Your task to perform on an android device: toggle pop-ups in chrome Image 0: 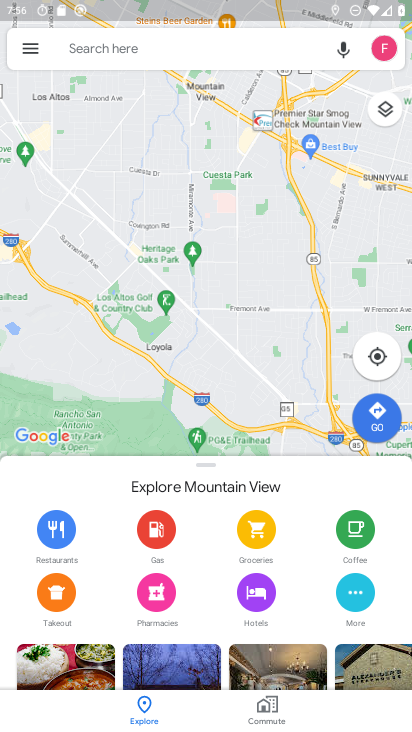
Step 0: press home button
Your task to perform on an android device: toggle pop-ups in chrome Image 1: 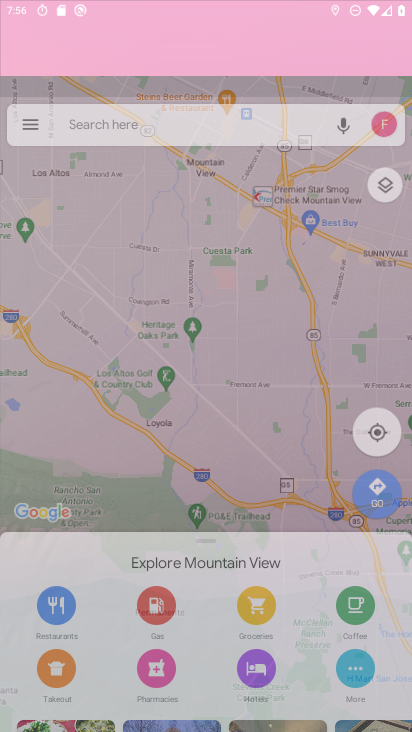
Step 1: drag from (382, 694) to (313, 76)
Your task to perform on an android device: toggle pop-ups in chrome Image 2: 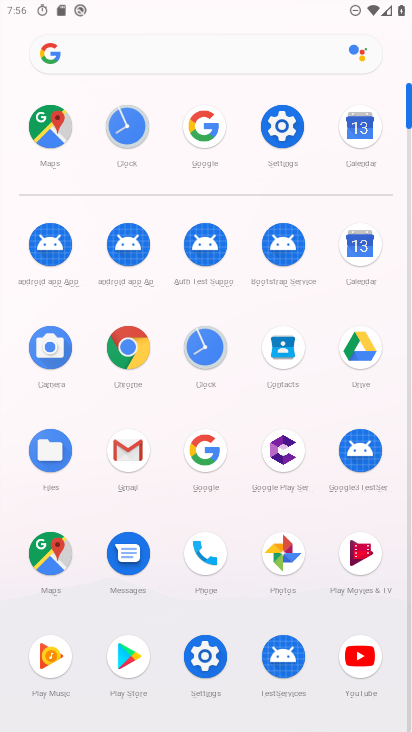
Step 2: click (122, 344)
Your task to perform on an android device: toggle pop-ups in chrome Image 3: 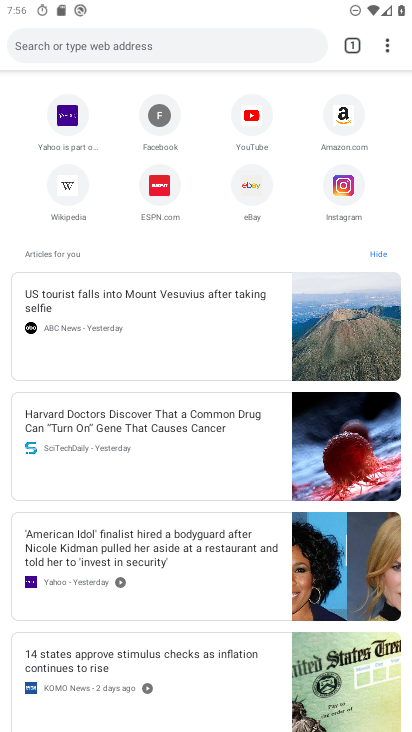
Step 3: click (388, 49)
Your task to perform on an android device: toggle pop-ups in chrome Image 4: 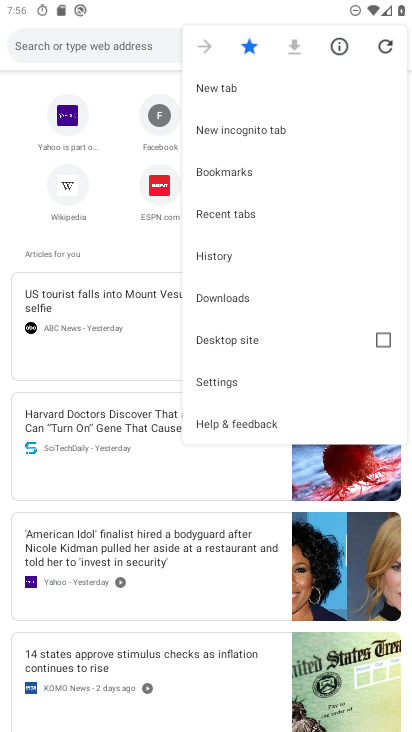
Step 4: click (258, 385)
Your task to perform on an android device: toggle pop-ups in chrome Image 5: 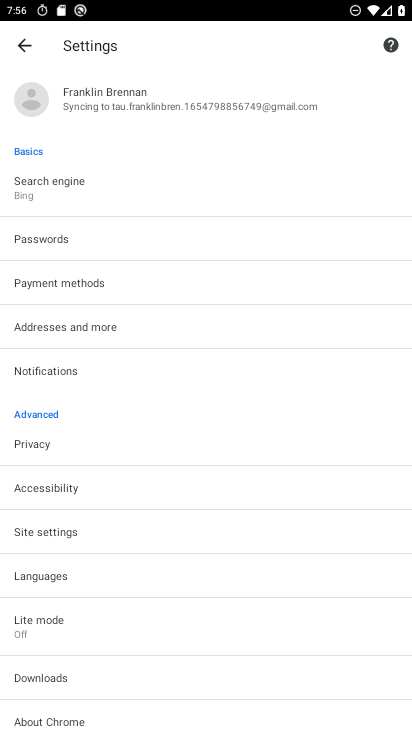
Step 5: click (91, 540)
Your task to perform on an android device: toggle pop-ups in chrome Image 6: 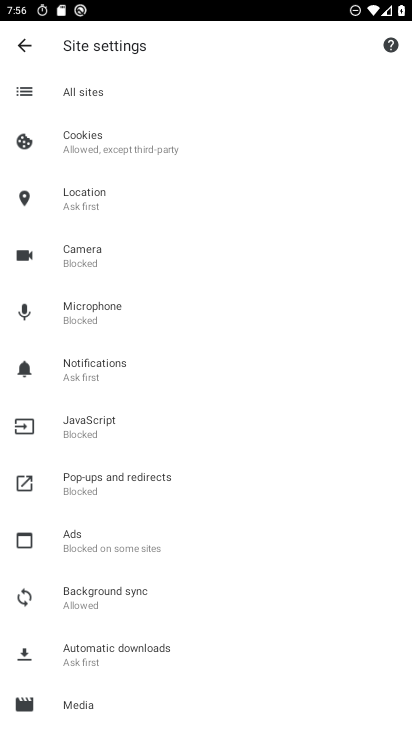
Step 6: click (85, 488)
Your task to perform on an android device: toggle pop-ups in chrome Image 7: 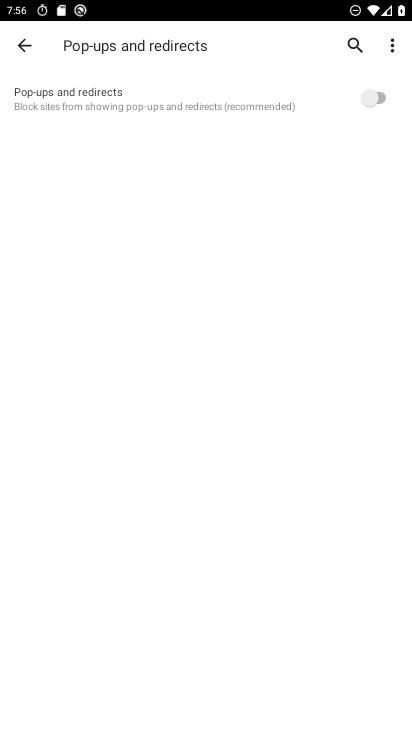
Step 7: click (378, 97)
Your task to perform on an android device: toggle pop-ups in chrome Image 8: 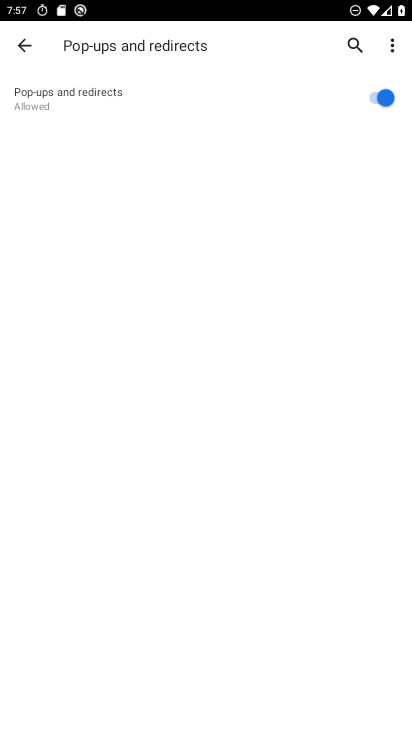
Step 8: task complete